Your task to perform on an android device: delete a single message in the gmail app Image 0: 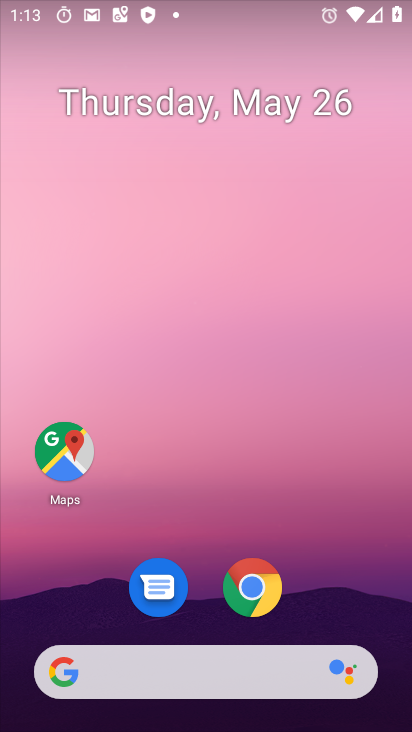
Step 0: drag from (212, 686) to (256, 87)
Your task to perform on an android device: delete a single message in the gmail app Image 1: 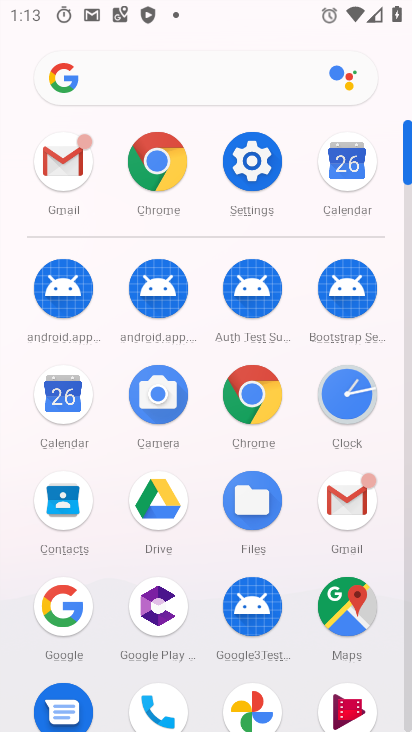
Step 1: click (75, 164)
Your task to perform on an android device: delete a single message in the gmail app Image 2: 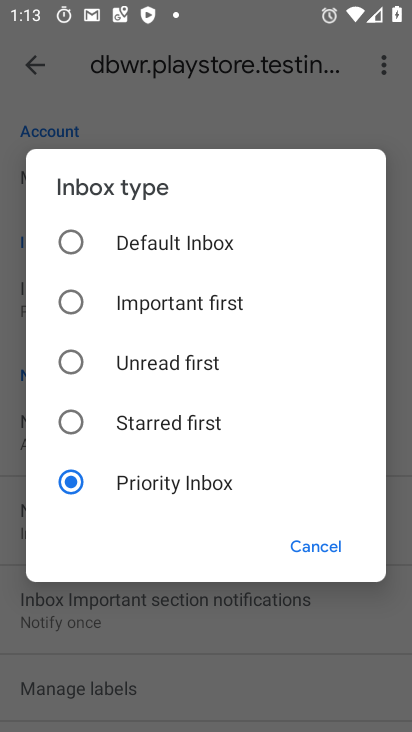
Step 2: click (318, 549)
Your task to perform on an android device: delete a single message in the gmail app Image 3: 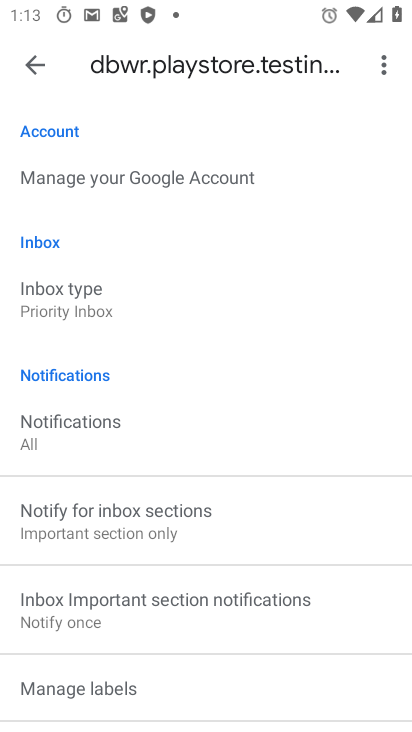
Step 3: click (50, 76)
Your task to perform on an android device: delete a single message in the gmail app Image 4: 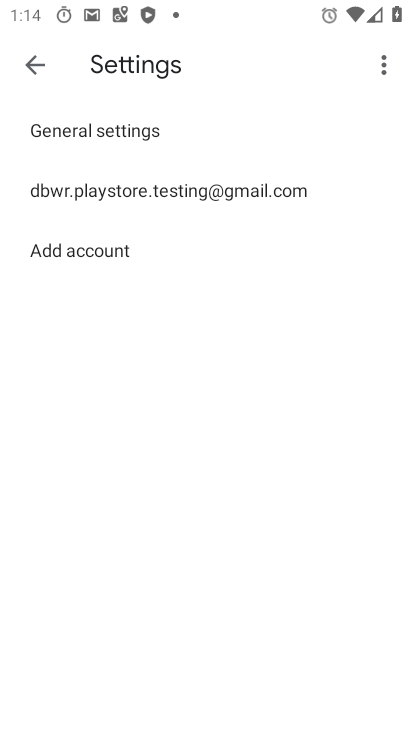
Step 4: click (47, 73)
Your task to perform on an android device: delete a single message in the gmail app Image 5: 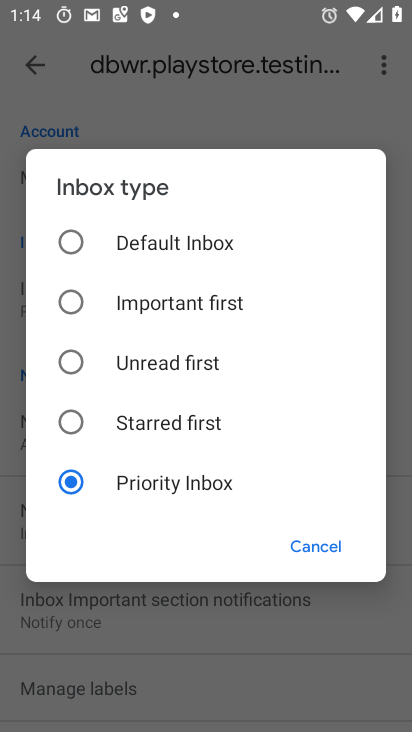
Step 5: click (313, 546)
Your task to perform on an android device: delete a single message in the gmail app Image 6: 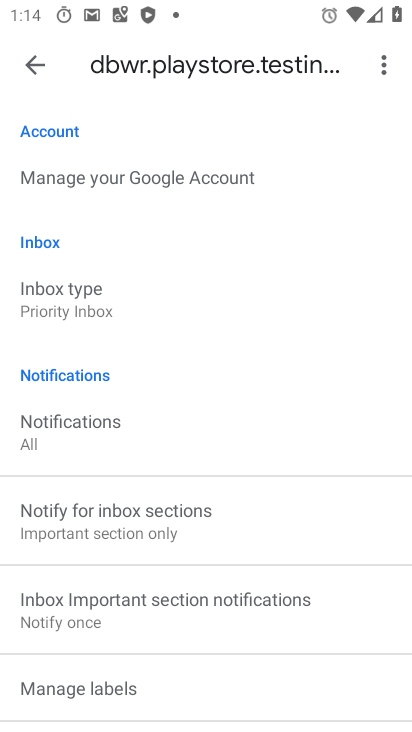
Step 6: click (34, 70)
Your task to perform on an android device: delete a single message in the gmail app Image 7: 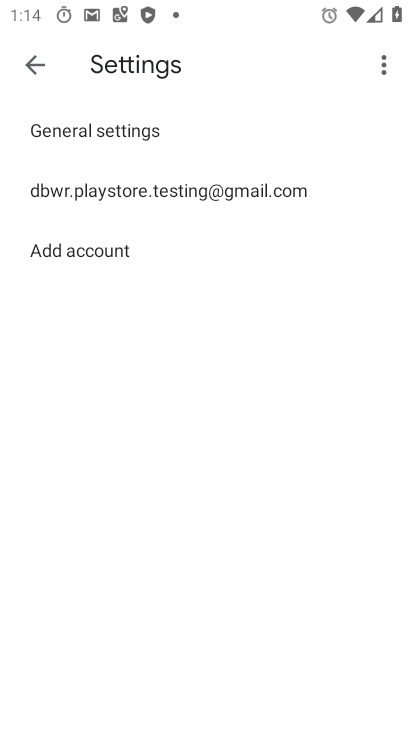
Step 7: click (34, 70)
Your task to perform on an android device: delete a single message in the gmail app Image 8: 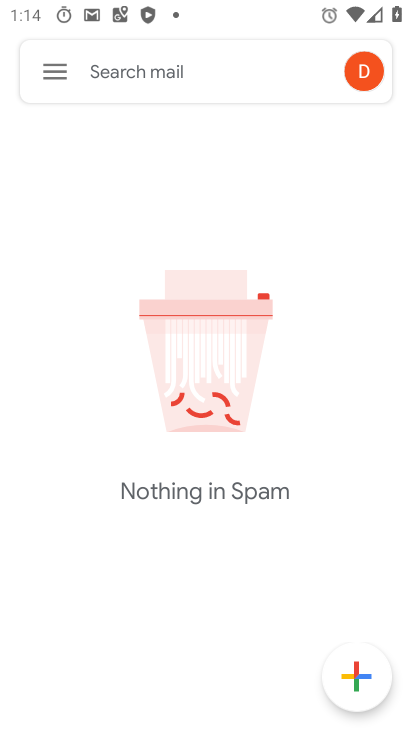
Step 8: task complete